Your task to perform on an android device: Open eBay Image 0: 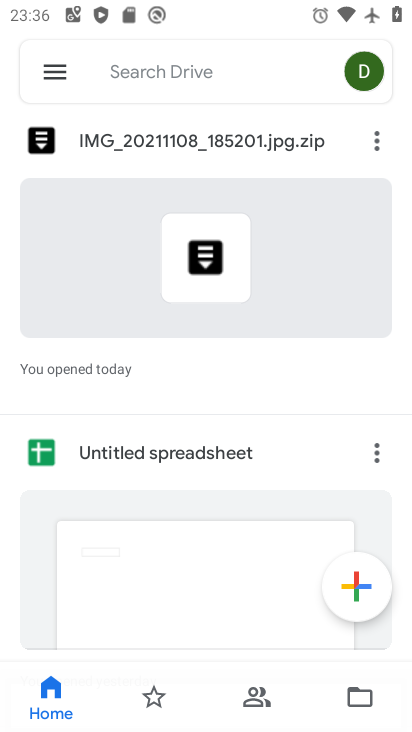
Step 0: press back button
Your task to perform on an android device: Open eBay Image 1: 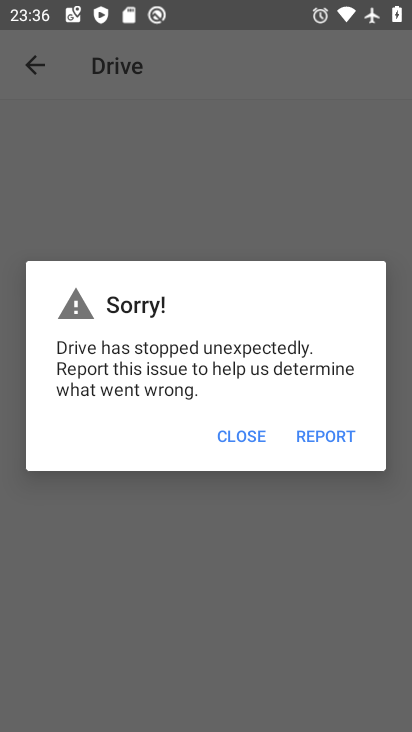
Step 1: press back button
Your task to perform on an android device: Open eBay Image 2: 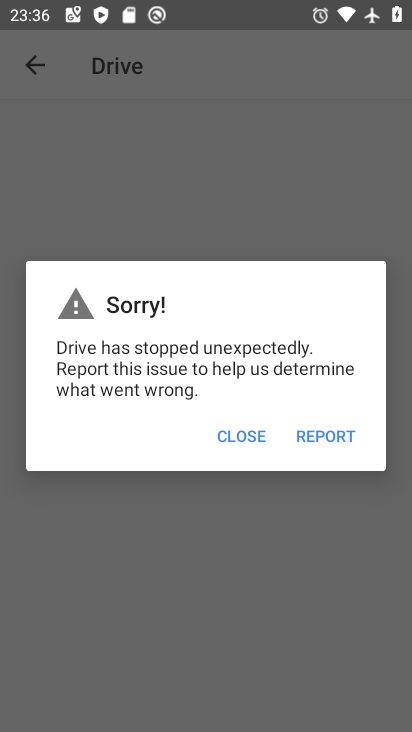
Step 2: press home button
Your task to perform on an android device: Open eBay Image 3: 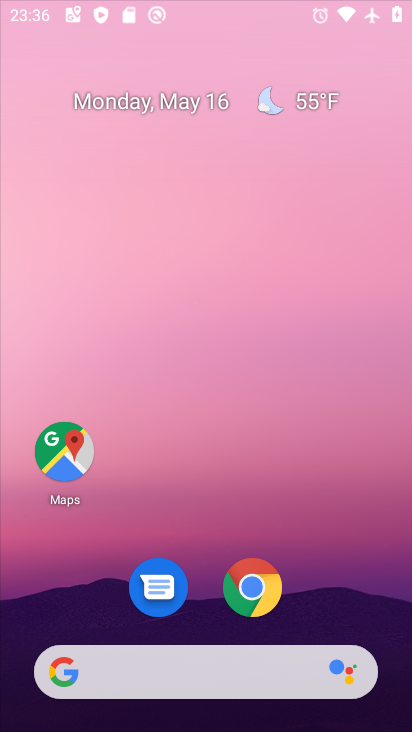
Step 3: drag from (308, 506) to (244, 46)
Your task to perform on an android device: Open eBay Image 4: 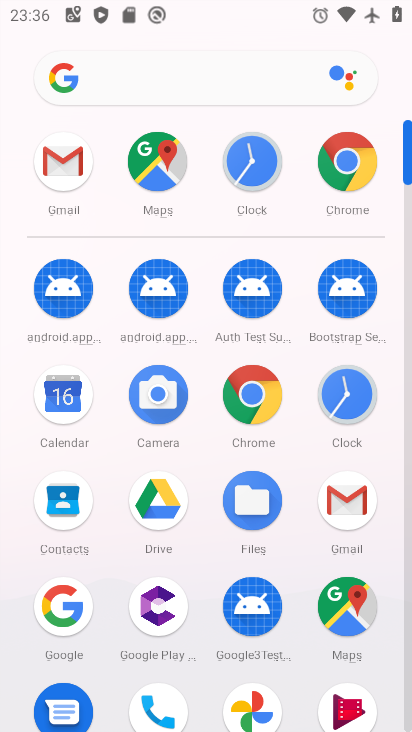
Step 4: click (250, 391)
Your task to perform on an android device: Open eBay Image 5: 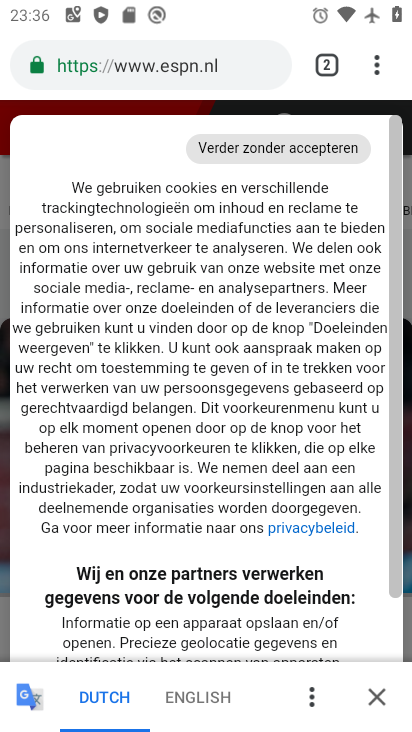
Step 5: click (200, 60)
Your task to perform on an android device: Open eBay Image 6: 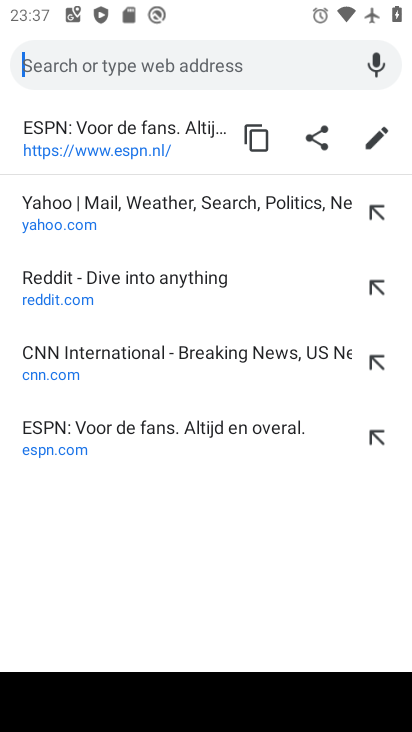
Step 6: type "eBay"
Your task to perform on an android device: Open eBay Image 7: 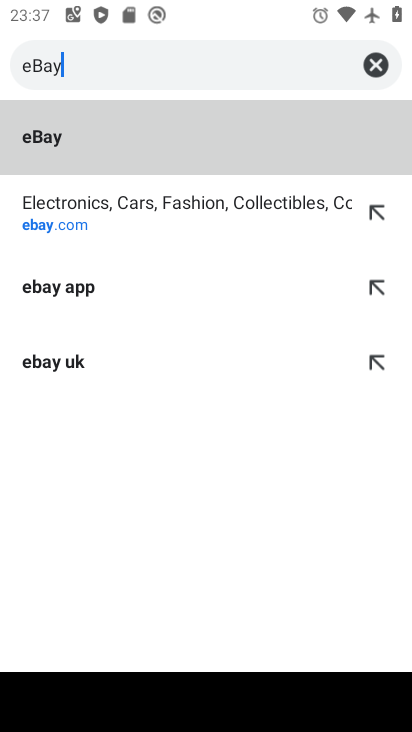
Step 7: click (203, 138)
Your task to perform on an android device: Open eBay Image 8: 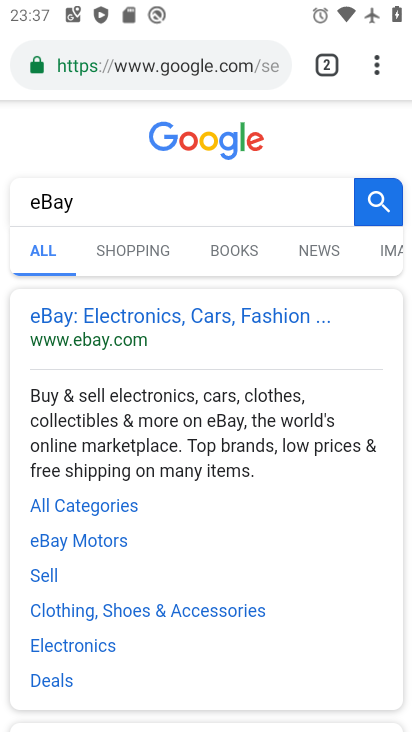
Step 8: click (84, 318)
Your task to perform on an android device: Open eBay Image 9: 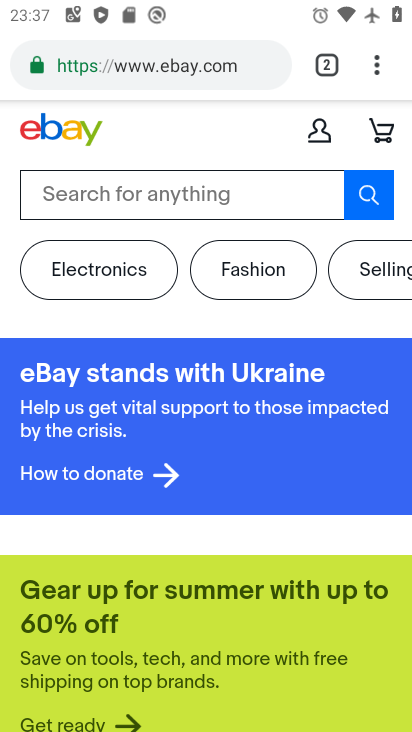
Step 9: task complete